Your task to perform on an android device: turn on improve location accuracy Image 0: 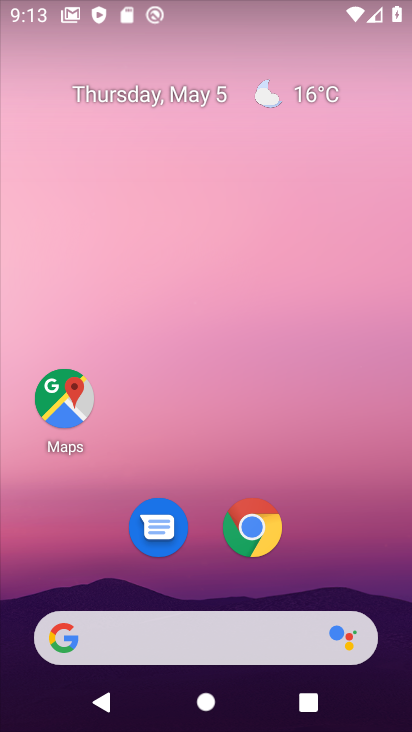
Step 0: drag from (215, 584) to (248, 84)
Your task to perform on an android device: turn on improve location accuracy Image 1: 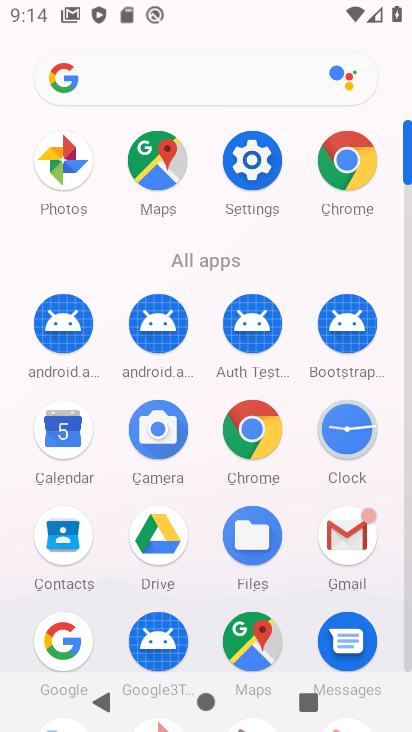
Step 1: click (243, 154)
Your task to perform on an android device: turn on improve location accuracy Image 2: 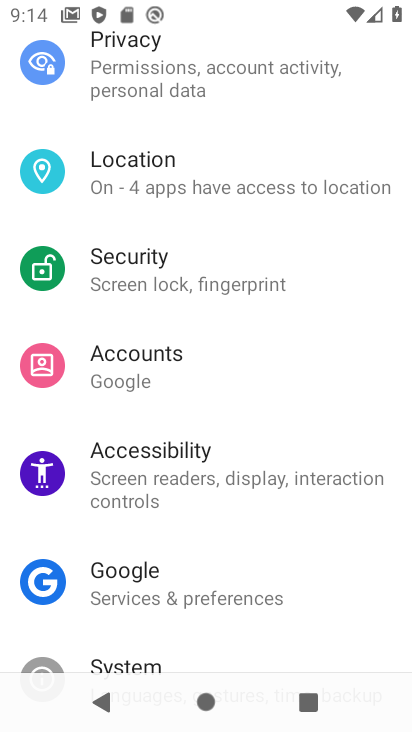
Step 2: click (179, 161)
Your task to perform on an android device: turn on improve location accuracy Image 3: 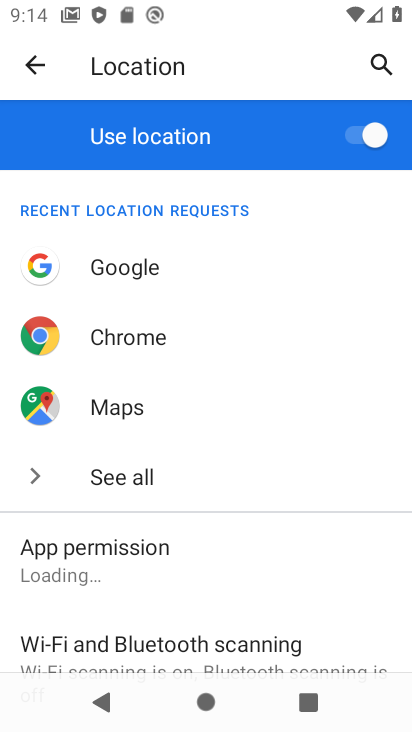
Step 3: drag from (226, 640) to (242, 168)
Your task to perform on an android device: turn on improve location accuracy Image 4: 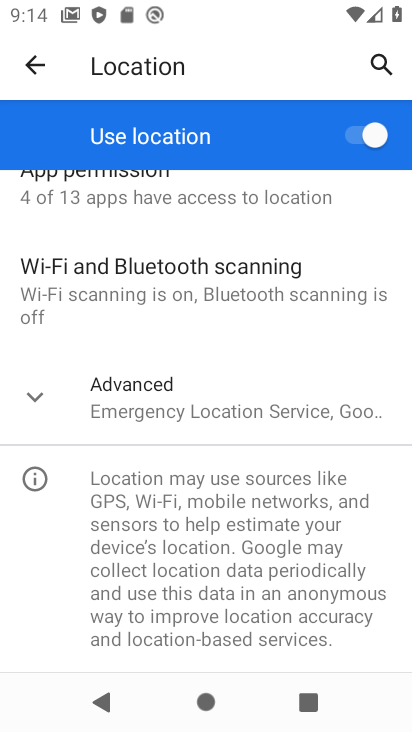
Step 4: click (34, 390)
Your task to perform on an android device: turn on improve location accuracy Image 5: 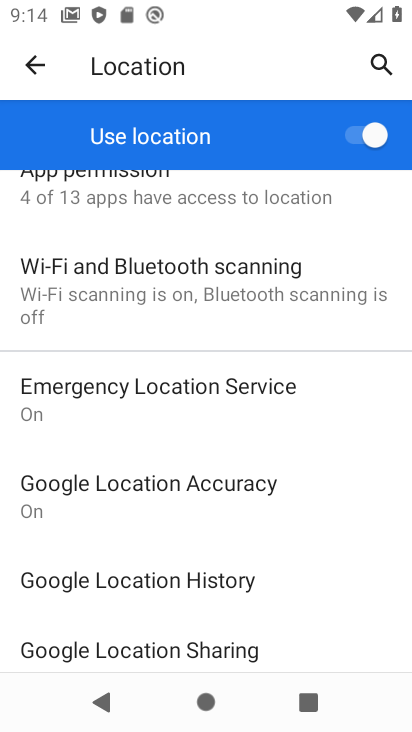
Step 5: click (58, 494)
Your task to perform on an android device: turn on improve location accuracy Image 6: 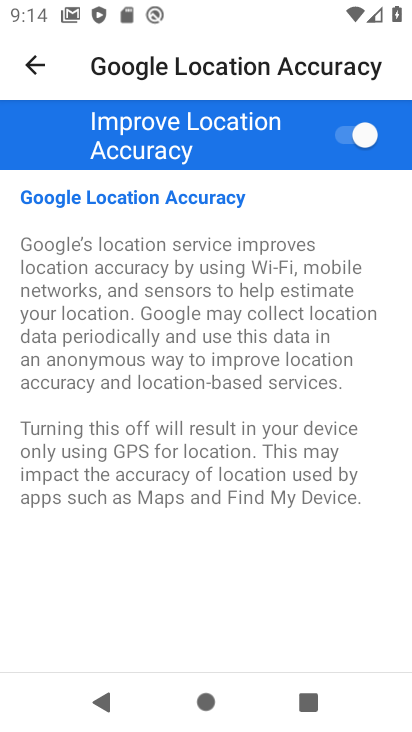
Step 6: task complete